Your task to perform on an android device: Open Google Maps Image 0: 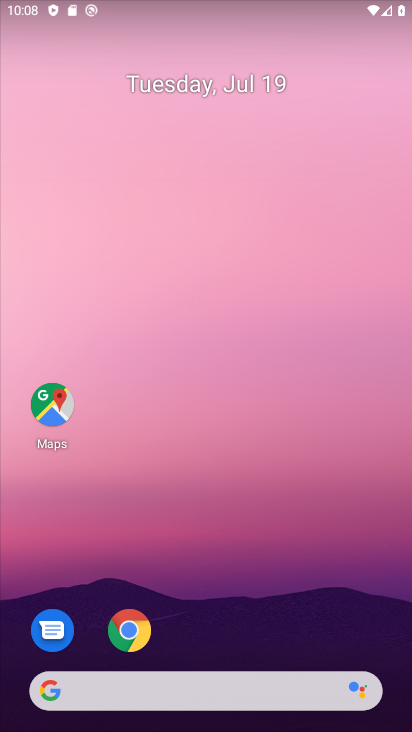
Step 0: press home button
Your task to perform on an android device: Open Google Maps Image 1: 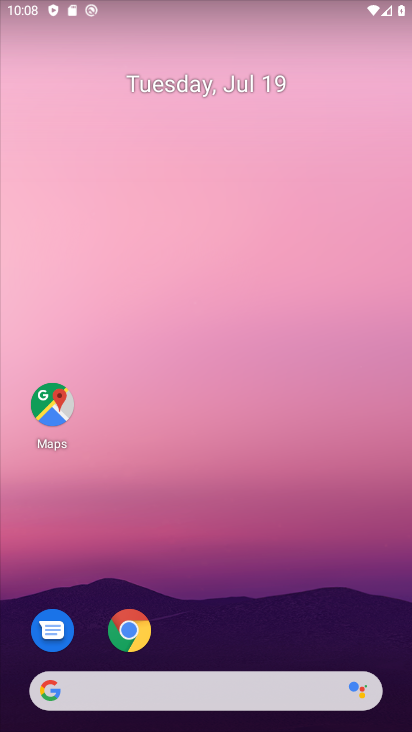
Step 1: drag from (251, 652) to (157, 5)
Your task to perform on an android device: Open Google Maps Image 2: 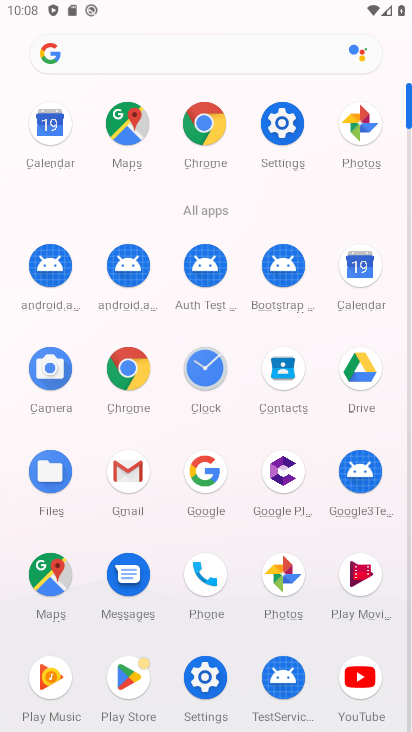
Step 2: click (124, 133)
Your task to perform on an android device: Open Google Maps Image 3: 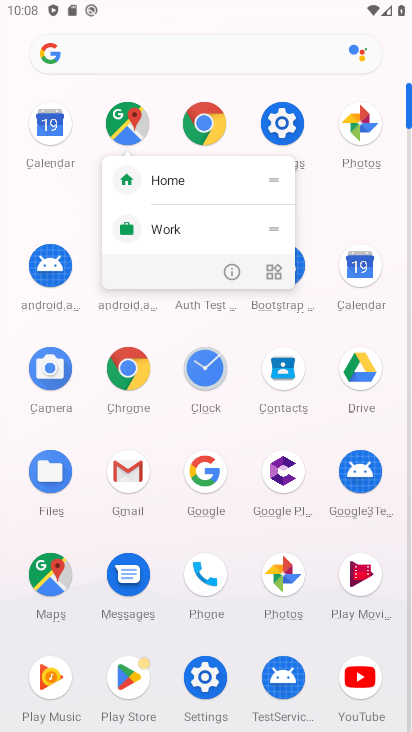
Step 3: click (124, 133)
Your task to perform on an android device: Open Google Maps Image 4: 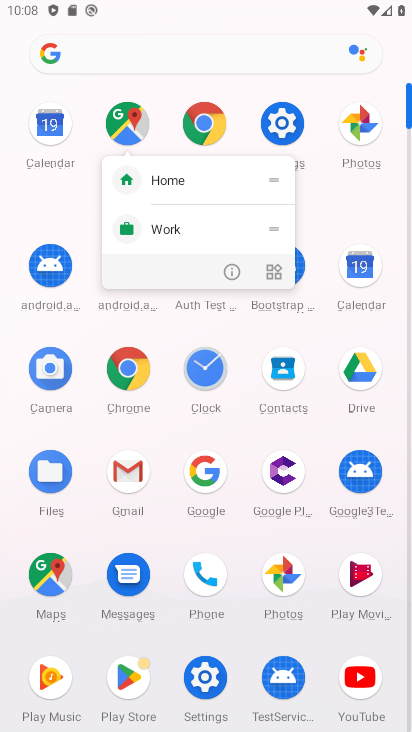
Step 4: click (124, 133)
Your task to perform on an android device: Open Google Maps Image 5: 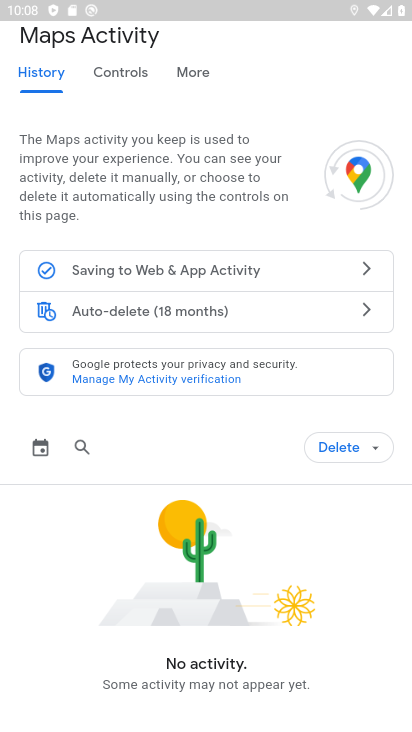
Step 5: task complete